Your task to perform on an android device: Is it going to rain today? Image 0: 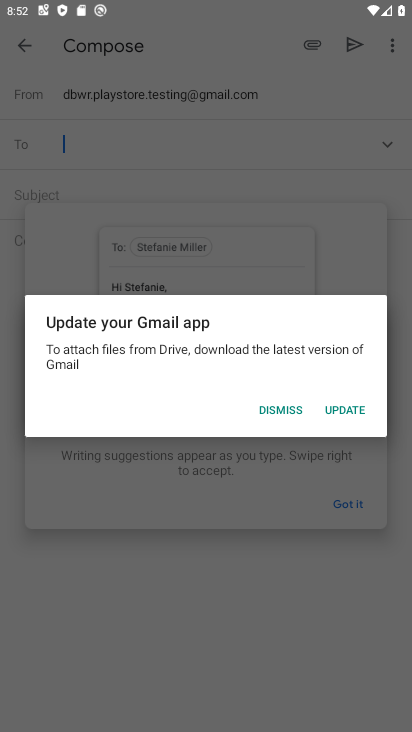
Step 0: press home button
Your task to perform on an android device: Is it going to rain today? Image 1: 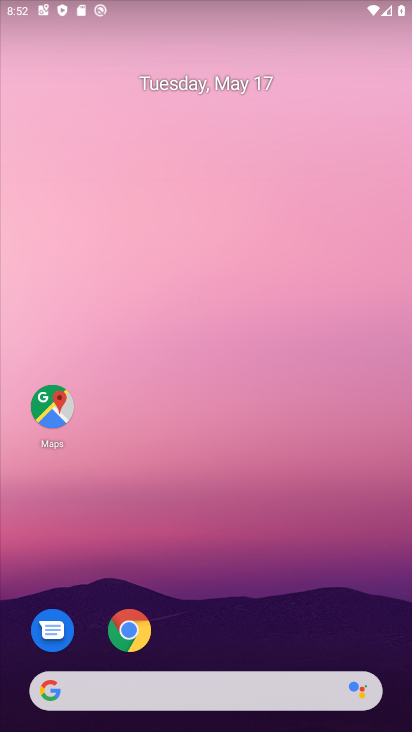
Step 1: click (137, 611)
Your task to perform on an android device: Is it going to rain today? Image 2: 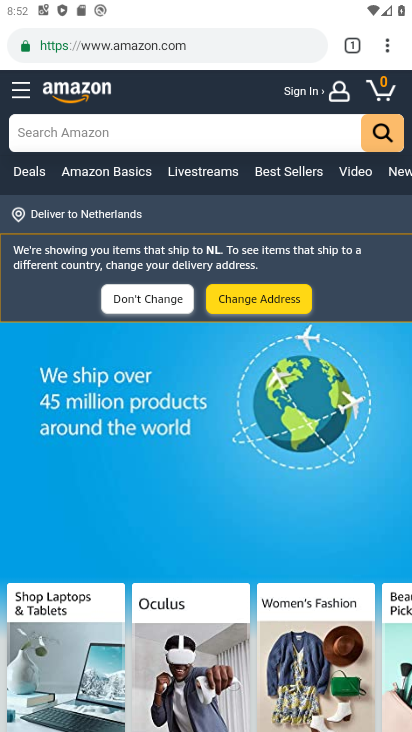
Step 2: click (351, 43)
Your task to perform on an android device: Is it going to rain today? Image 3: 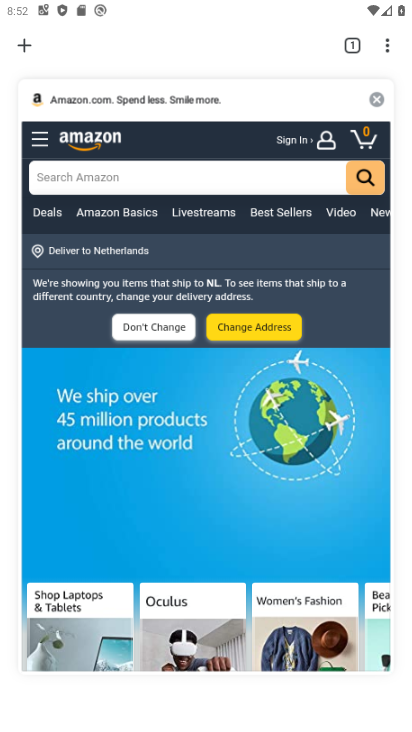
Step 3: click (18, 42)
Your task to perform on an android device: Is it going to rain today? Image 4: 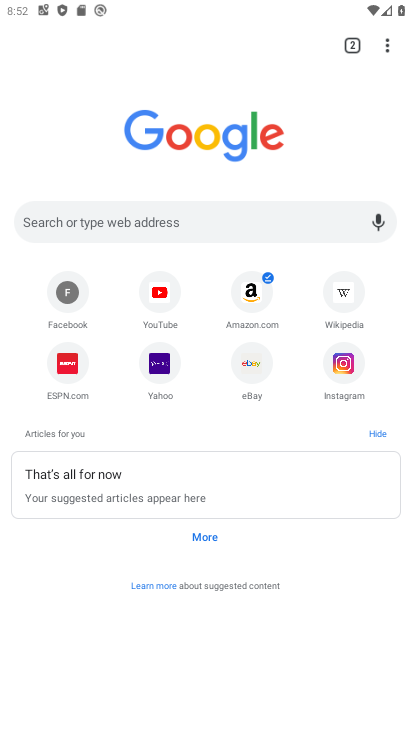
Step 4: click (128, 203)
Your task to perform on an android device: Is it going to rain today? Image 5: 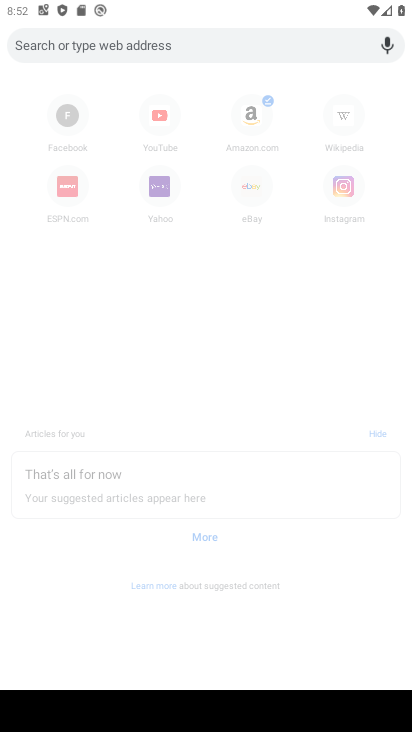
Step 5: type "is it going to rain today?"
Your task to perform on an android device: Is it going to rain today? Image 6: 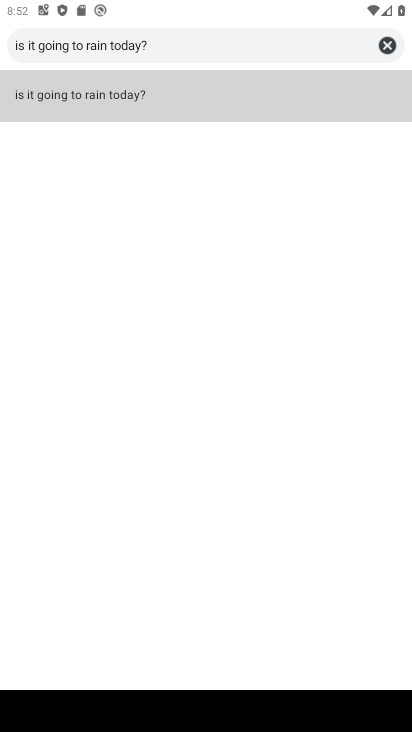
Step 6: click (79, 93)
Your task to perform on an android device: Is it going to rain today? Image 7: 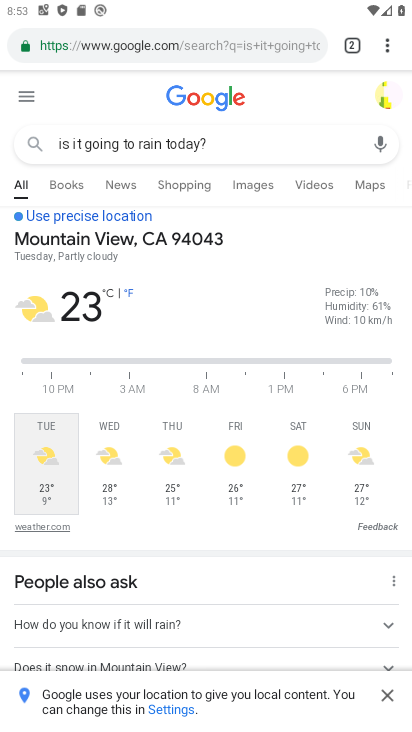
Step 7: task complete